Your task to perform on an android device: change the clock display to analog Image 0: 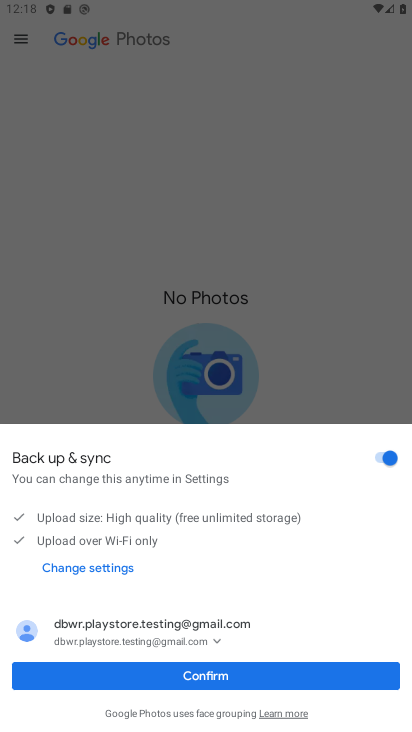
Step 0: press home button
Your task to perform on an android device: change the clock display to analog Image 1: 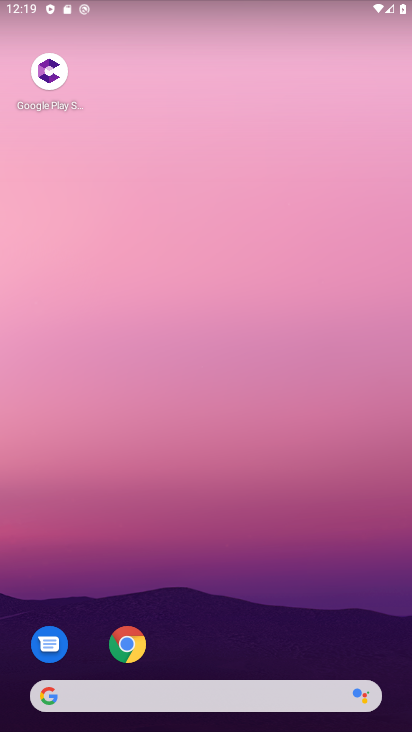
Step 1: drag from (288, 590) to (348, 1)
Your task to perform on an android device: change the clock display to analog Image 2: 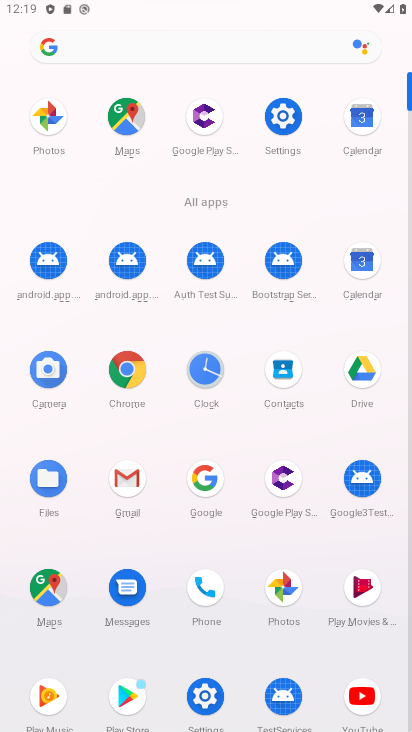
Step 2: click (204, 363)
Your task to perform on an android device: change the clock display to analog Image 3: 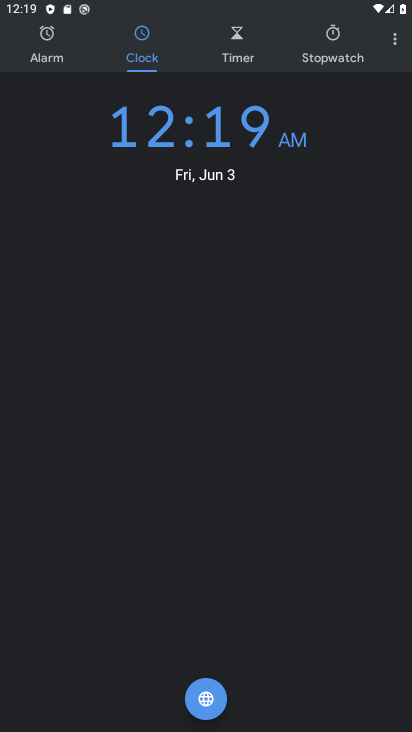
Step 3: click (391, 40)
Your task to perform on an android device: change the clock display to analog Image 4: 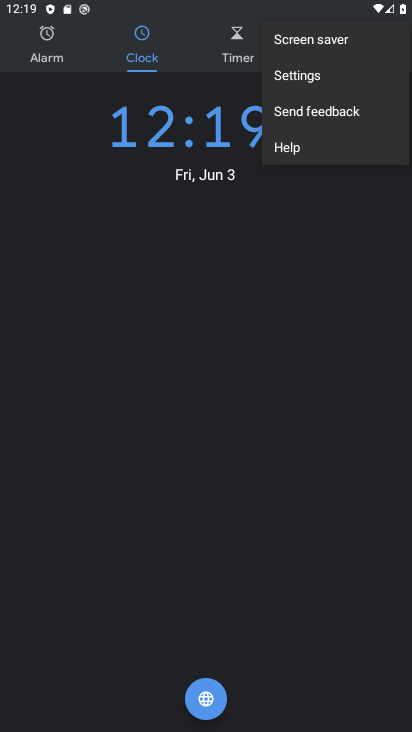
Step 4: click (299, 72)
Your task to perform on an android device: change the clock display to analog Image 5: 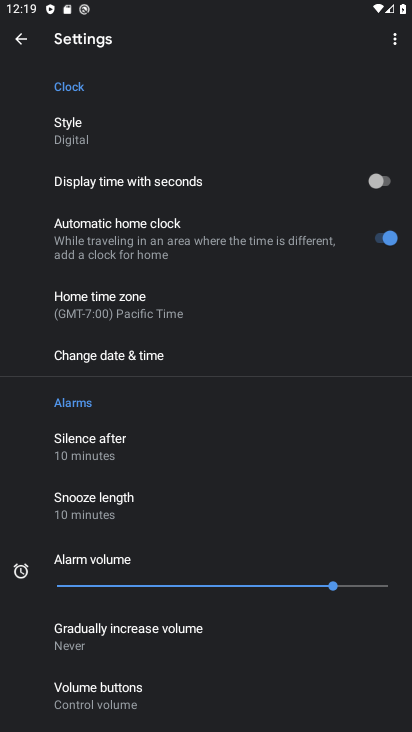
Step 5: click (104, 133)
Your task to perform on an android device: change the clock display to analog Image 6: 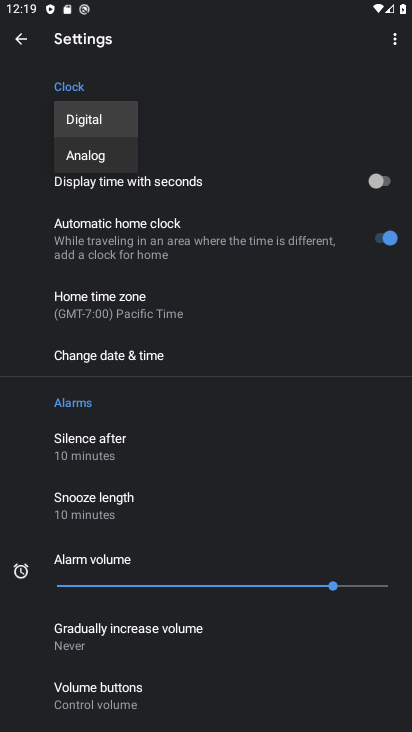
Step 6: click (105, 151)
Your task to perform on an android device: change the clock display to analog Image 7: 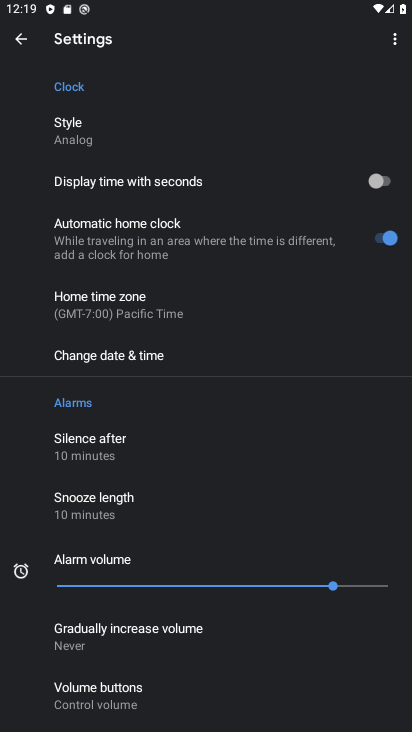
Step 7: task complete